Your task to perform on an android device: change notifications settings Image 0: 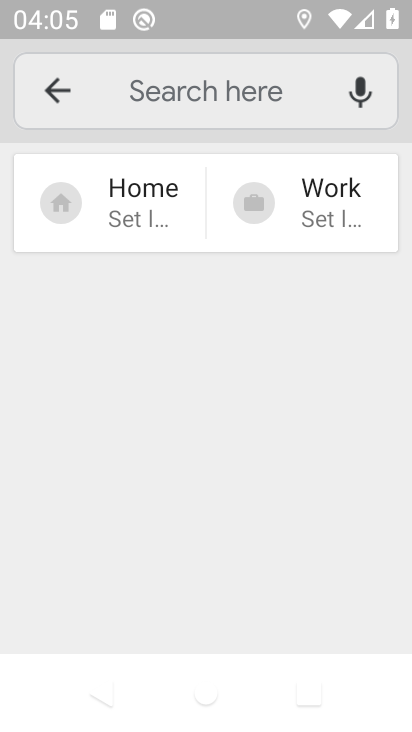
Step 0: press back button
Your task to perform on an android device: change notifications settings Image 1: 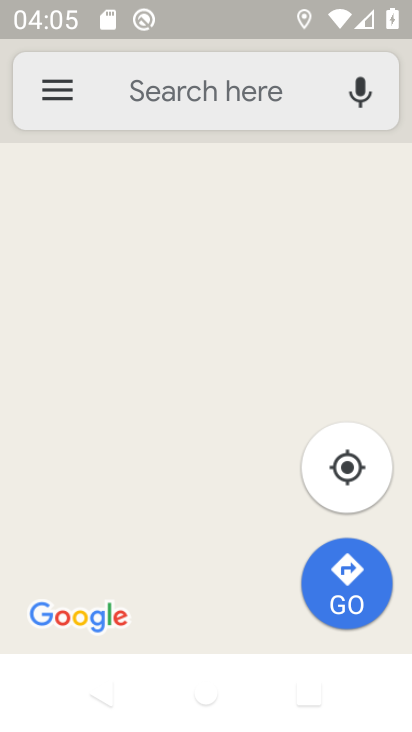
Step 1: press home button
Your task to perform on an android device: change notifications settings Image 2: 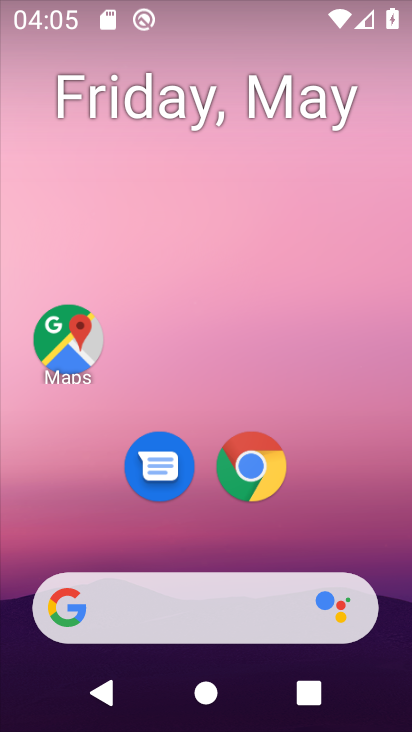
Step 2: drag from (389, 259) to (392, 195)
Your task to perform on an android device: change notifications settings Image 3: 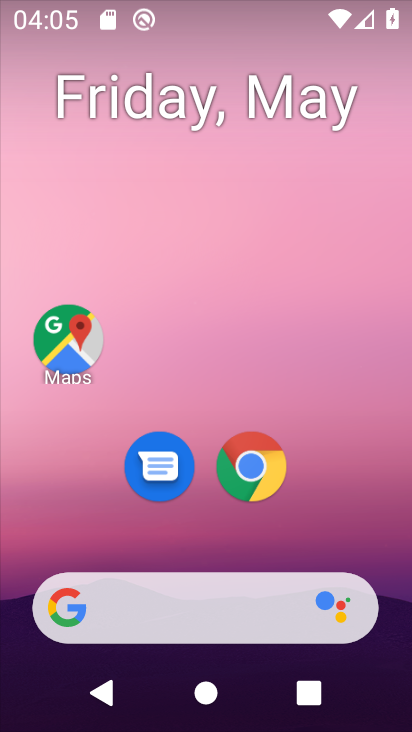
Step 3: drag from (400, 670) to (374, 307)
Your task to perform on an android device: change notifications settings Image 4: 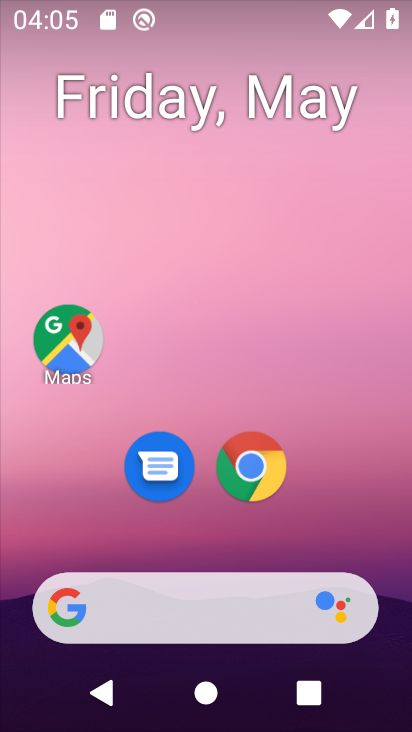
Step 4: drag from (393, 626) to (371, 212)
Your task to perform on an android device: change notifications settings Image 5: 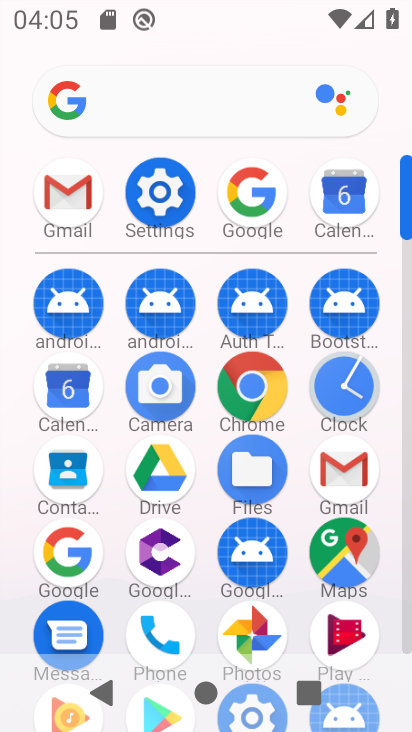
Step 5: click (167, 208)
Your task to perform on an android device: change notifications settings Image 6: 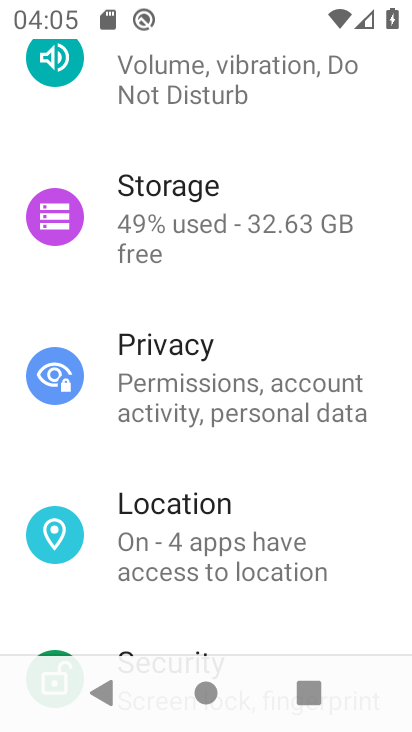
Step 6: drag from (342, 628) to (331, 408)
Your task to perform on an android device: change notifications settings Image 7: 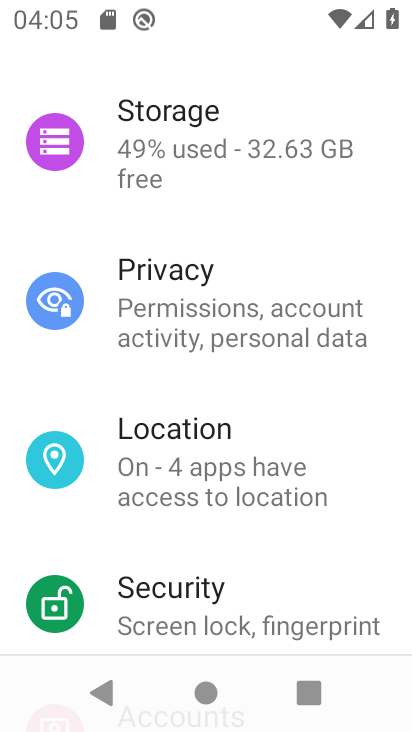
Step 7: drag from (361, 606) to (333, 307)
Your task to perform on an android device: change notifications settings Image 8: 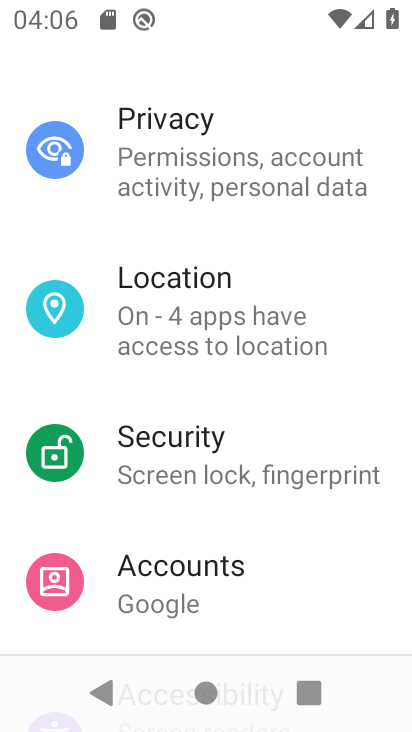
Step 8: drag from (363, 522) to (335, 305)
Your task to perform on an android device: change notifications settings Image 9: 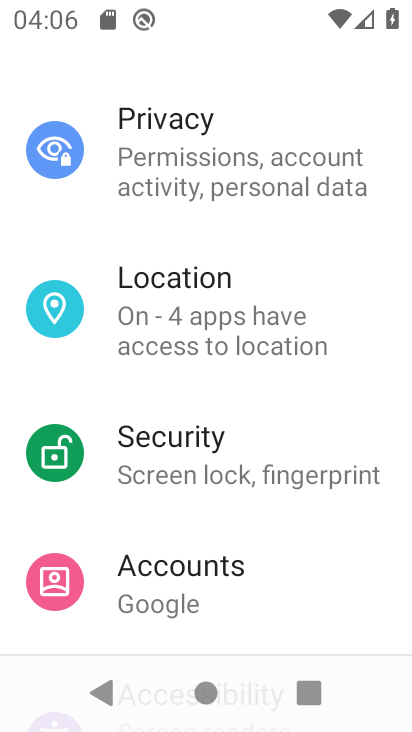
Step 9: drag from (339, 620) to (311, 329)
Your task to perform on an android device: change notifications settings Image 10: 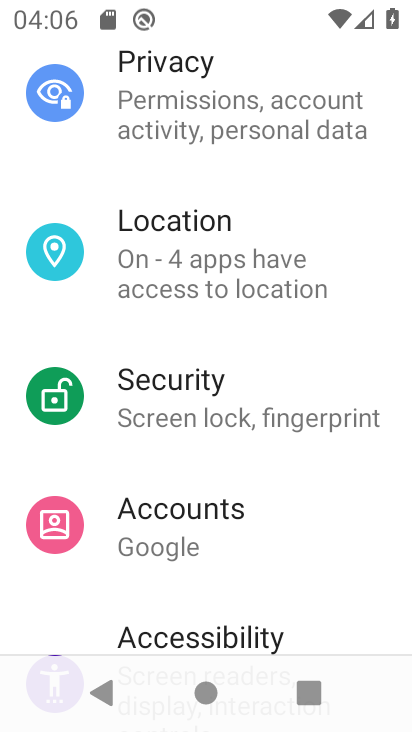
Step 10: drag from (323, 352) to (339, 663)
Your task to perform on an android device: change notifications settings Image 11: 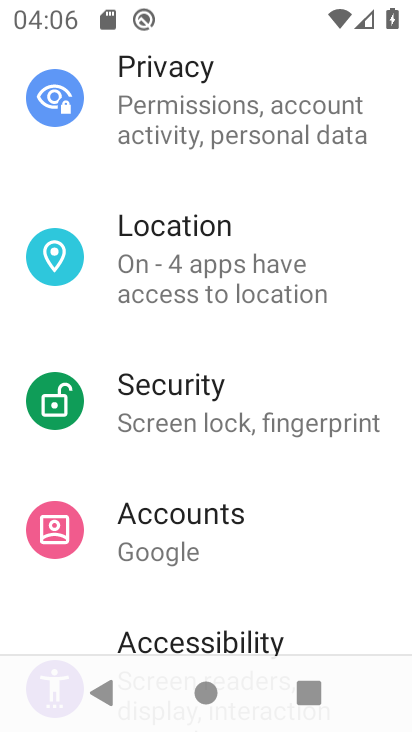
Step 11: drag from (341, 148) to (372, 549)
Your task to perform on an android device: change notifications settings Image 12: 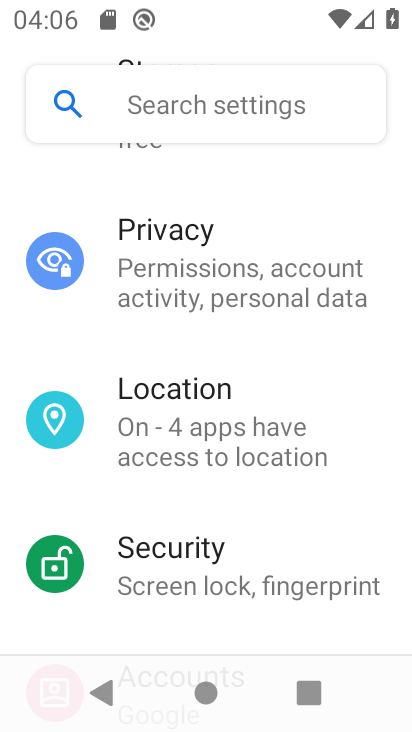
Step 12: click (331, 566)
Your task to perform on an android device: change notifications settings Image 13: 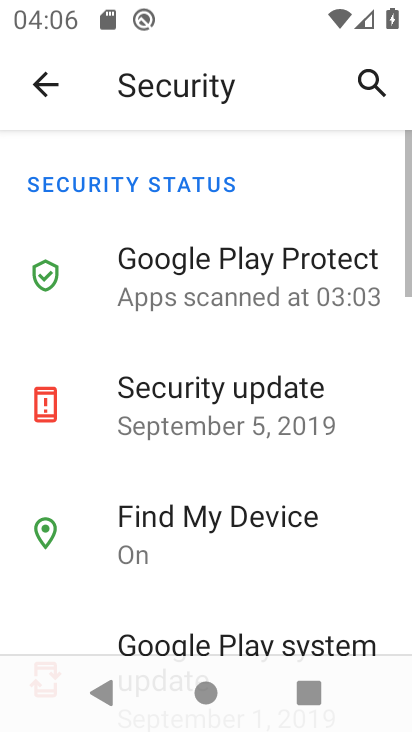
Step 13: drag from (386, 178) to (406, 497)
Your task to perform on an android device: change notifications settings Image 14: 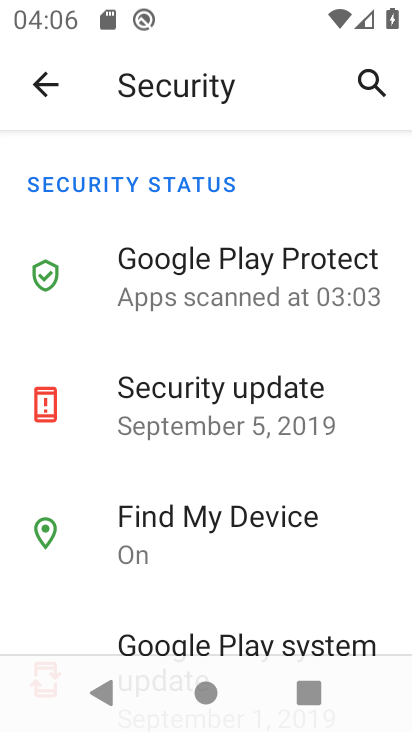
Step 14: press back button
Your task to perform on an android device: change notifications settings Image 15: 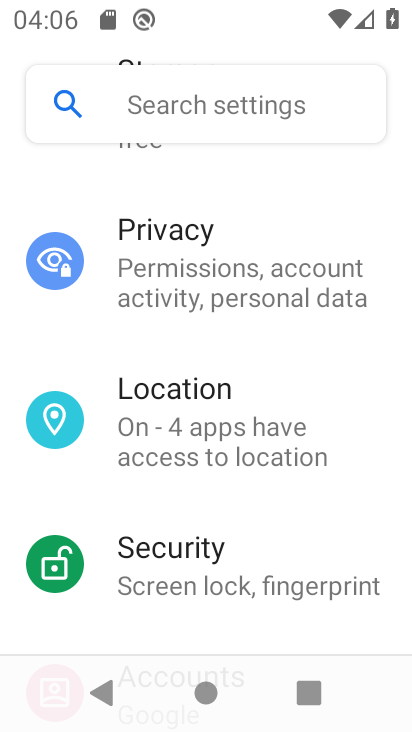
Step 15: drag from (399, 150) to (410, 491)
Your task to perform on an android device: change notifications settings Image 16: 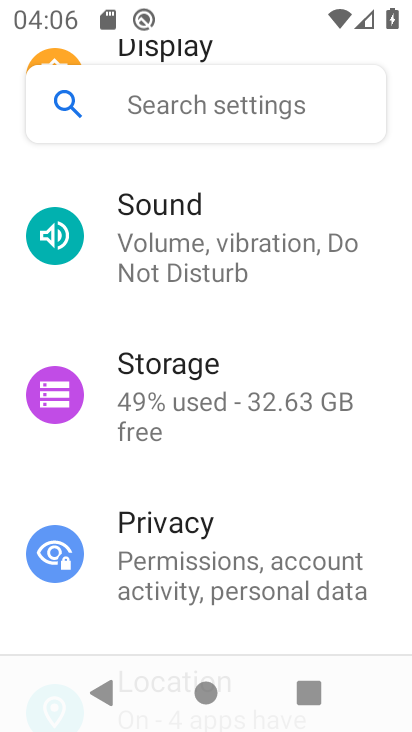
Step 16: click (391, 471)
Your task to perform on an android device: change notifications settings Image 17: 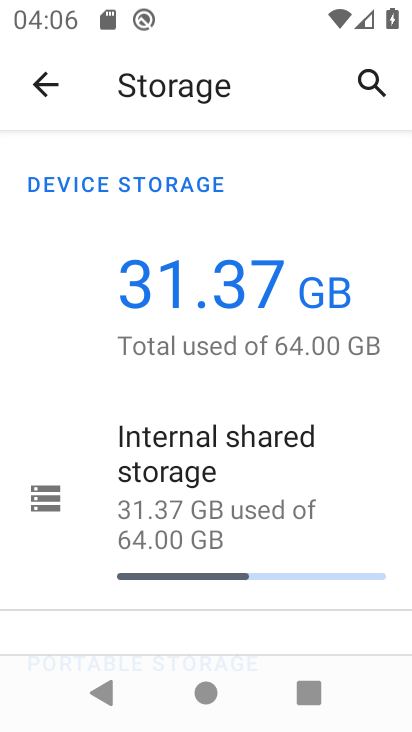
Step 17: click (46, 83)
Your task to perform on an android device: change notifications settings Image 18: 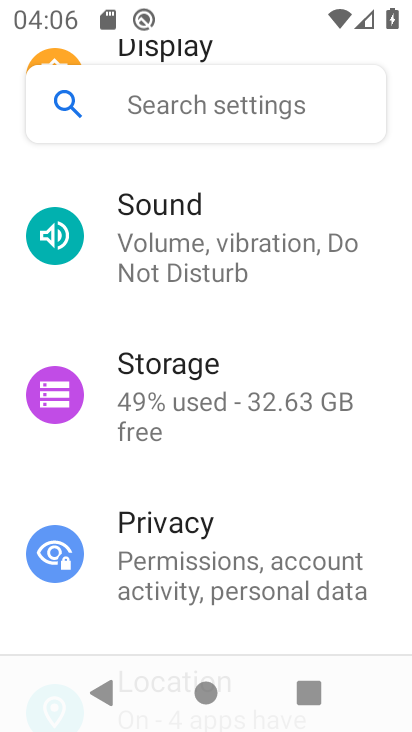
Step 18: drag from (392, 457) to (394, 538)
Your task to perform on an android device: change notifications settings Image 19: 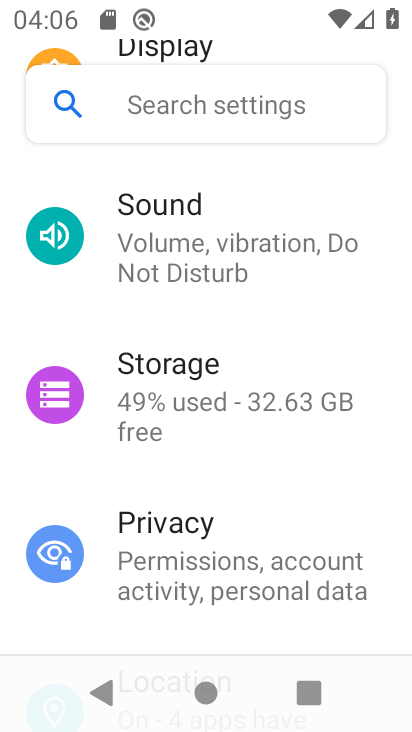
Step 19: drag from (385, 159) to (410, 482)
Your task to perform on an android device: change notifications settings Image 20: 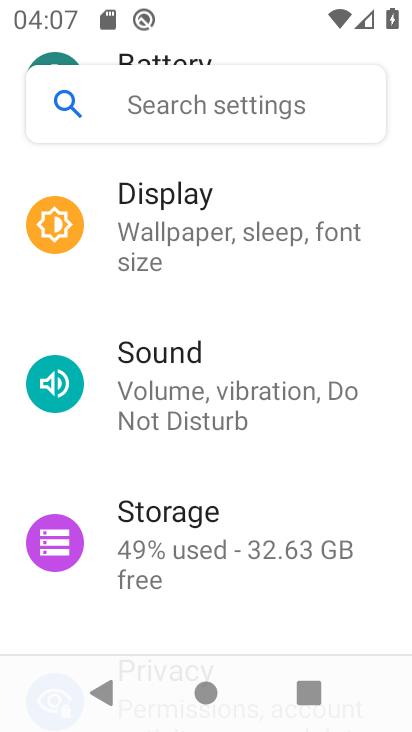
Step 20: drag from (370, 263) to (369, 486)
Your task to perform on an android device: change notifications settings Image 21: 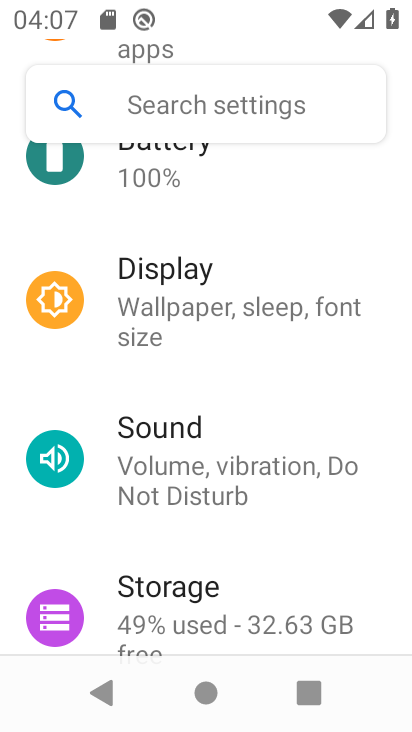
Step 21: drag from (362, 177) to (377, 516)
Your task to perform on an android device: change notifications settings Image 22: 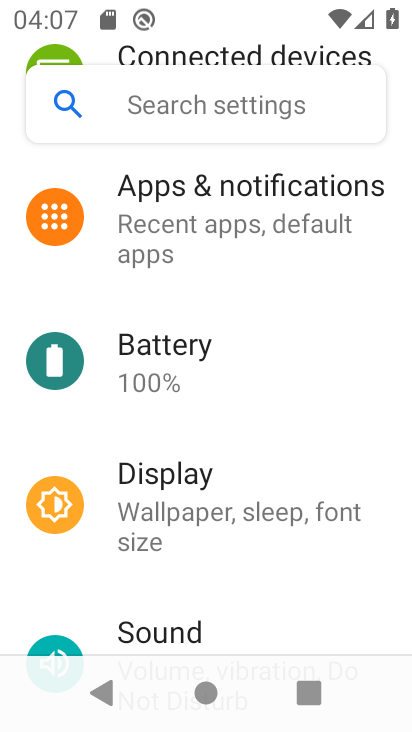
Step 22: click (248, 198)
Your task to perform on an android device: change notifications settings Image 23: 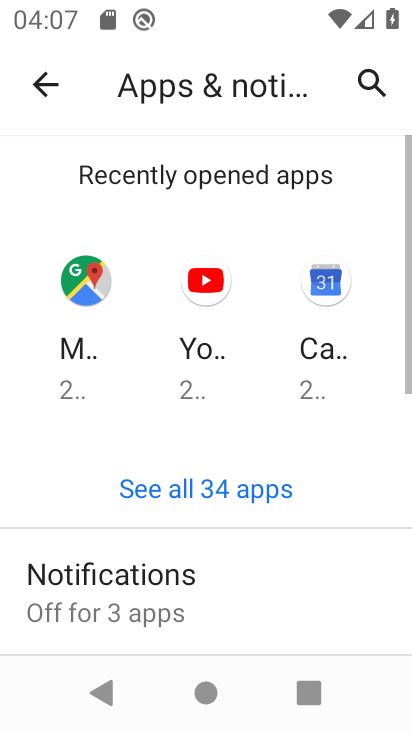
Step 23: click (75, 592)
Your task to perform on an android device: change notifications settings Image 24: 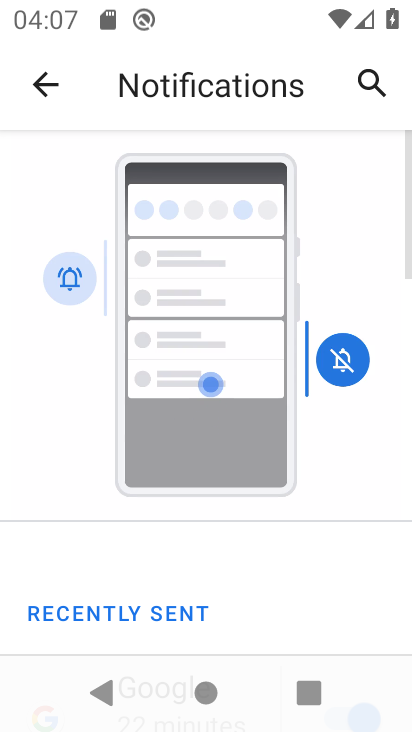
Step 24: drag from (275, 492) to (255, 257)
Your task to perform on an android device: change notifications settings Image 25: 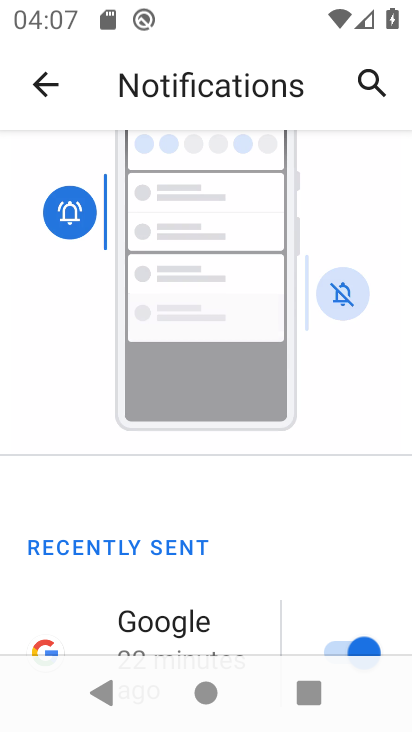
Step 25: click (255, 216)
Your task to perform on an android device: change notifications settings Image 26: 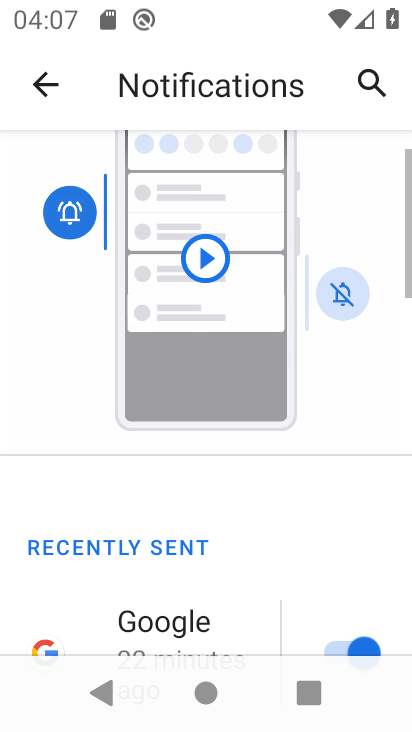
Step 26: drag from (247, 638) to (235, 307)
Your task to perform on an android device: change notifications settings Image 27: 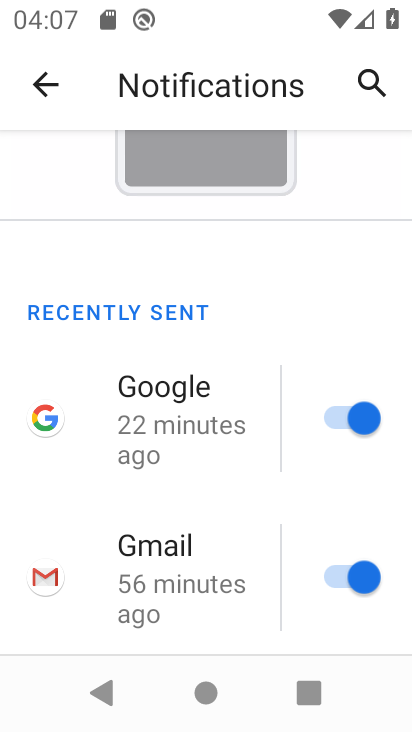
Step 27: drag from (262, 599) to (235, 240)
Your task to perform on an android device: change notifications settings Image 28: 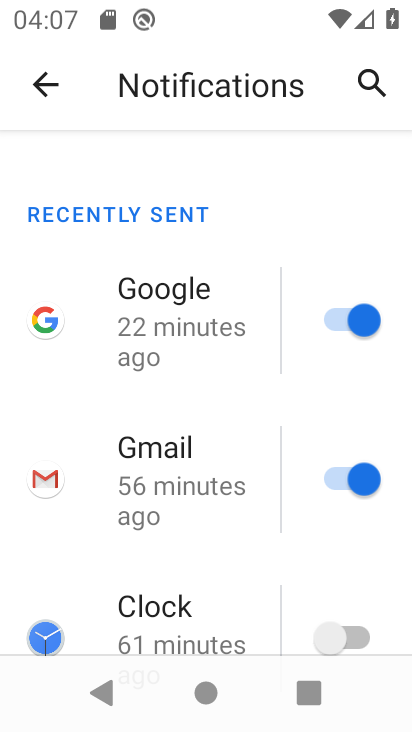
Step 28: click (320, 314)
Your task to perform on an android device: change notifications settings Image 29: 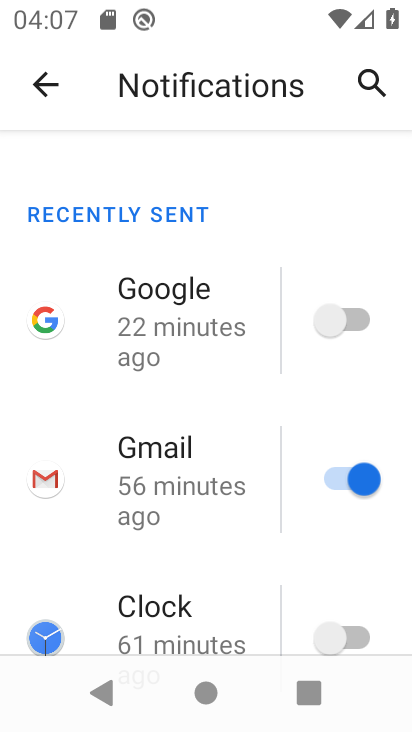
Step 29: click (339, 472)
Your task to perform on an android device: change notifications settings Image 30: 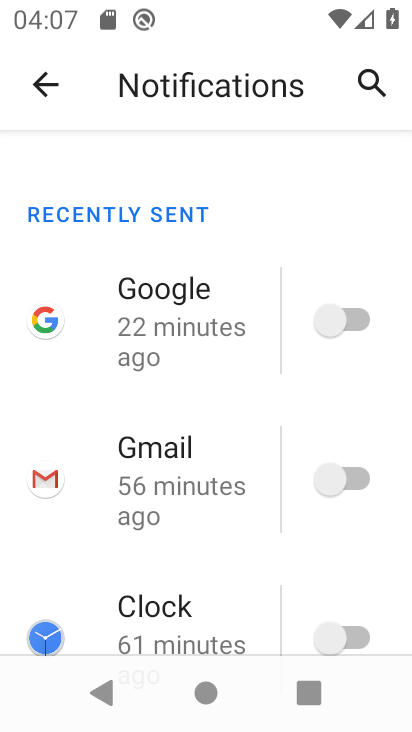
Step 30: click (363, 638)
Your task to perform on an android device: change notifications settings Image 31: 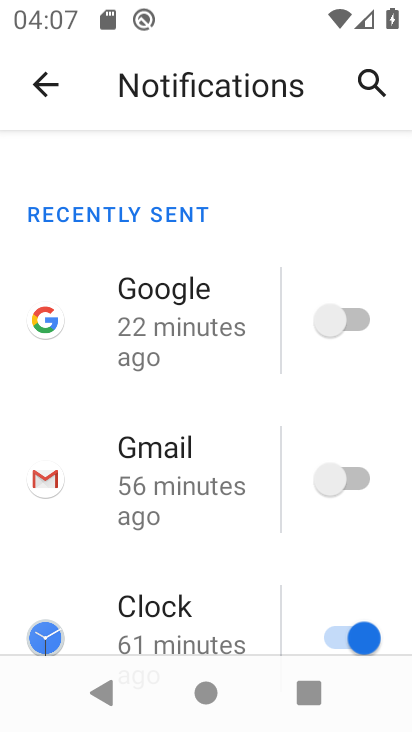
Step 31: task complete